Your task to perform on an android device: all mails in gmail Image 0: 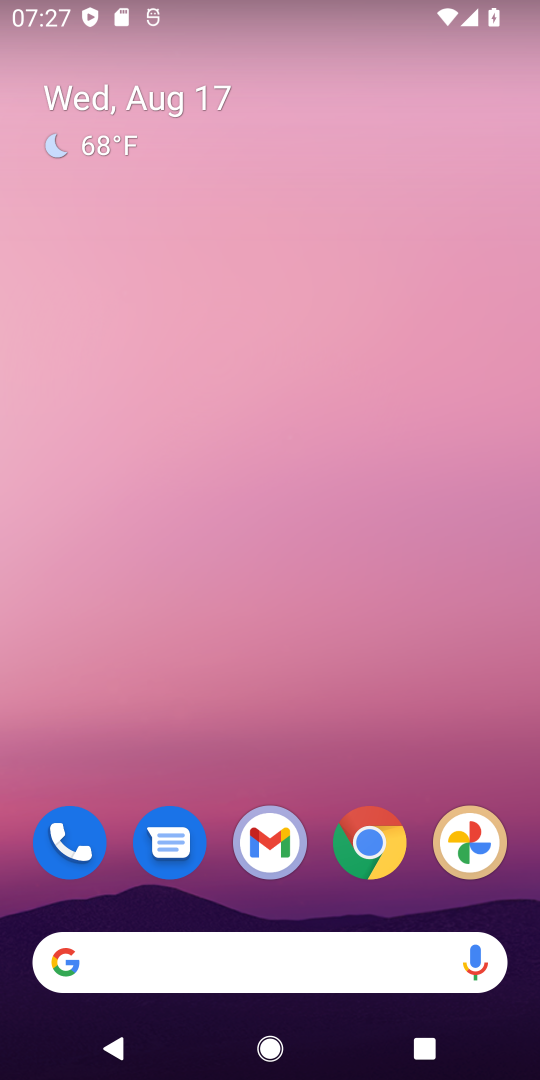
Step 0: click (259, 842)
Your task to perform on an android device: all mails in gmail Image 1: 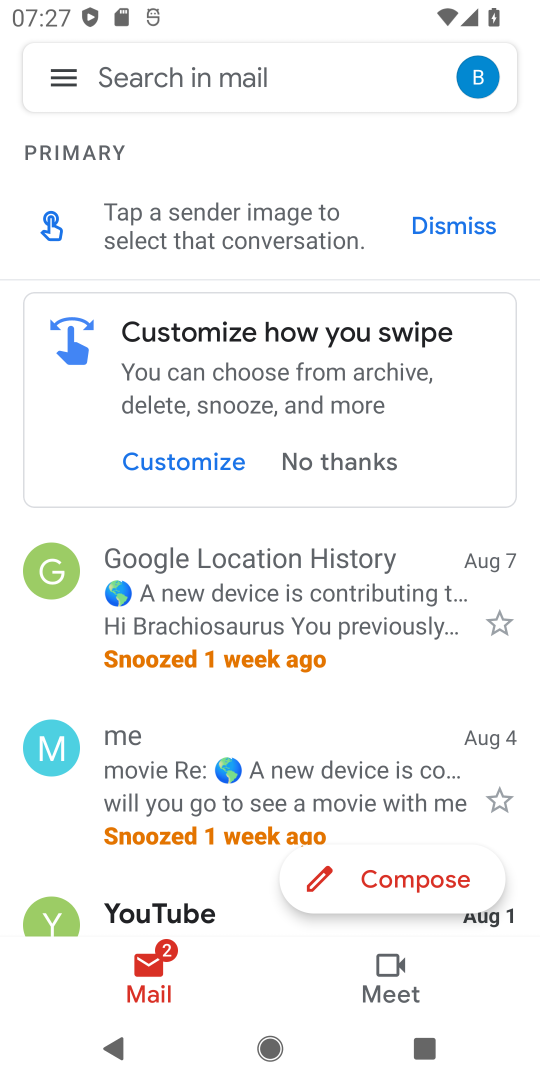
Step 1: click (61, 59)
Your task to perform on an android device: all mails in gmail Image 2: 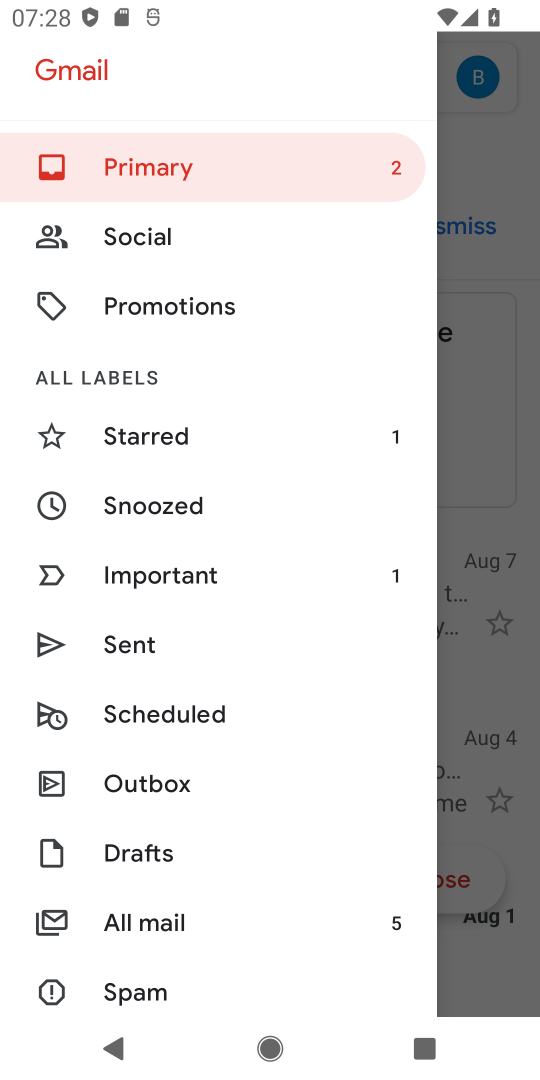
Step 2: click (157, 930)
Your task to perform on an android device: all mails in gmail Image 3: 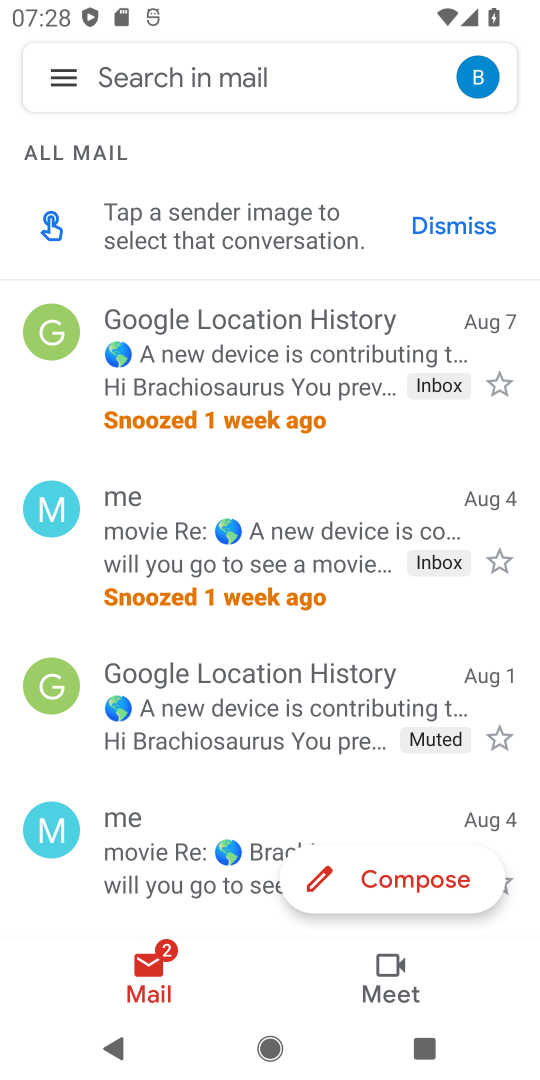
Step 3: task complete